Your task to perform on an android device: delete the emails in spam in the gmail app Image 0: 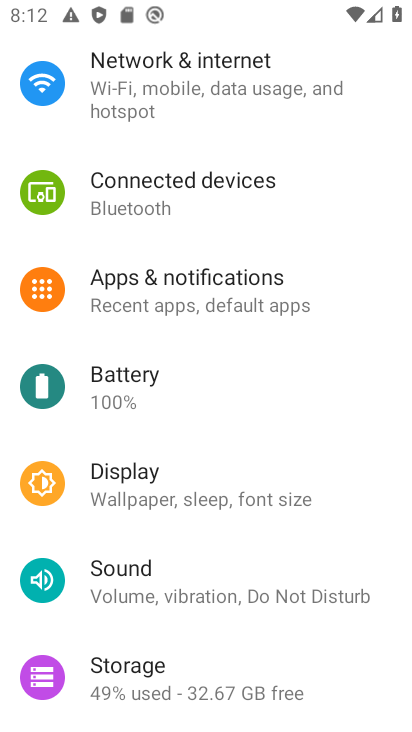
Step 0: press back button
Your task to perform on an android device: delete the emails in spam in the gmail app Image 1: 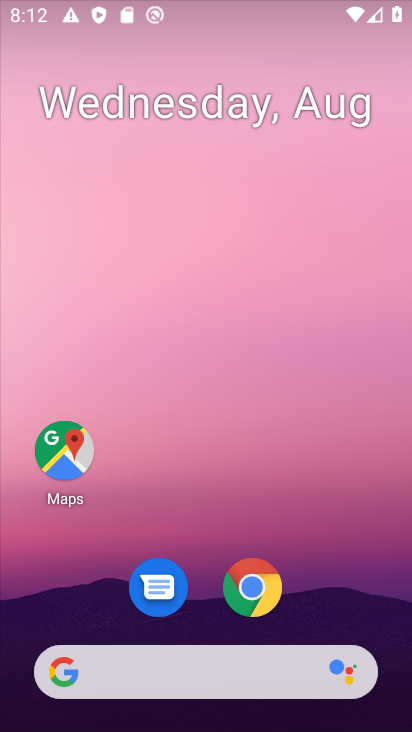
Step 1: drag from (152, 622) to (103, 284)
Your task to perform on an android device: delete the emails in spam in the gmail app Image 2: 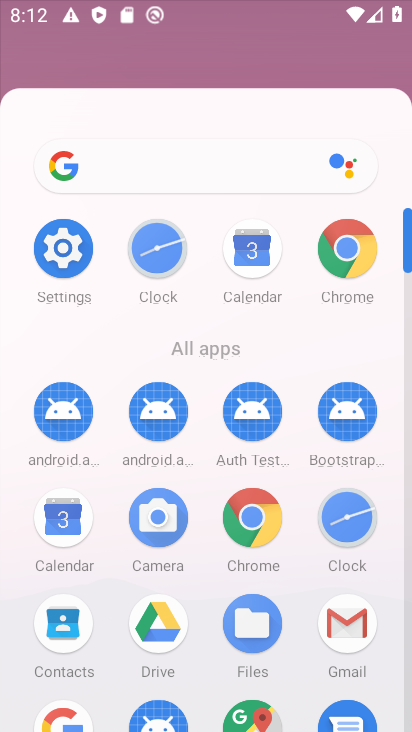
Step 2: drag from (150, 655) to (50, 300)
Your task to perform on an android device: delete the emails in spam in the gmail app Image 3: 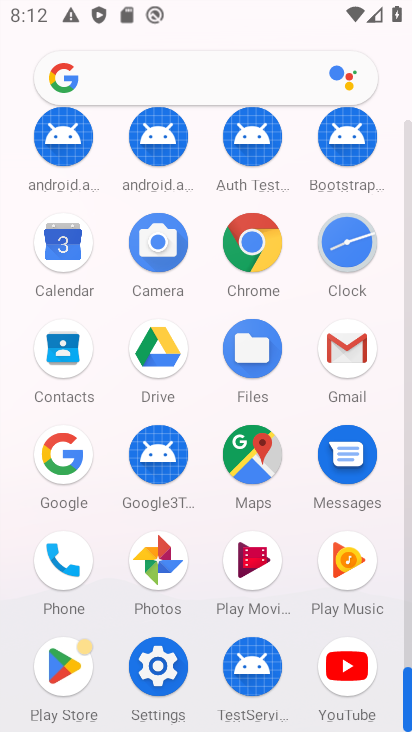
Step 3: click (345, 353)
Your task to perform on an android device: delete the emails in spam in the gmail app Image 4: 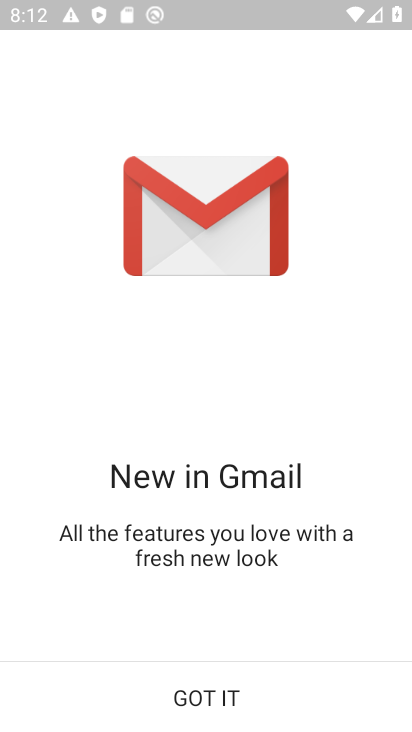
Step 4: press back button
Your task to perform on an android device: delete the emails in spam in the gmail app Image 5: 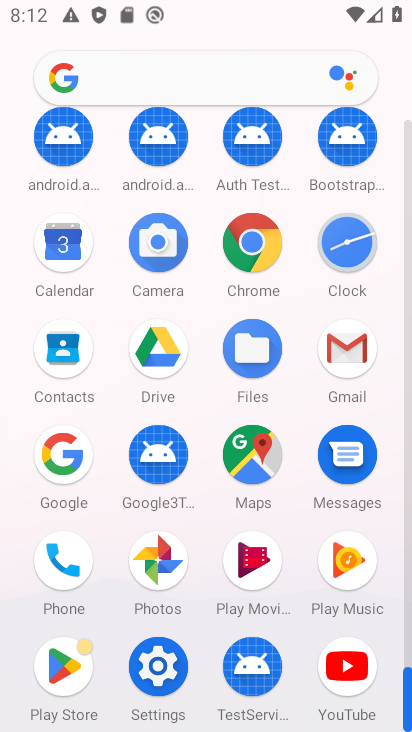
Step 5: click (342, 351)
Your task to perform on an android device: delete the emails in spam in the gmail app Image 6: 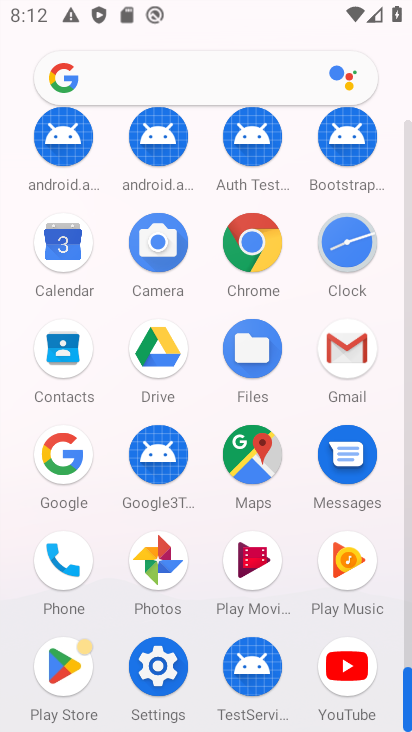
Step 6: click (342, 352)
Your task to perform on an android device: delete the emails in spam in the gmail app Image 7: 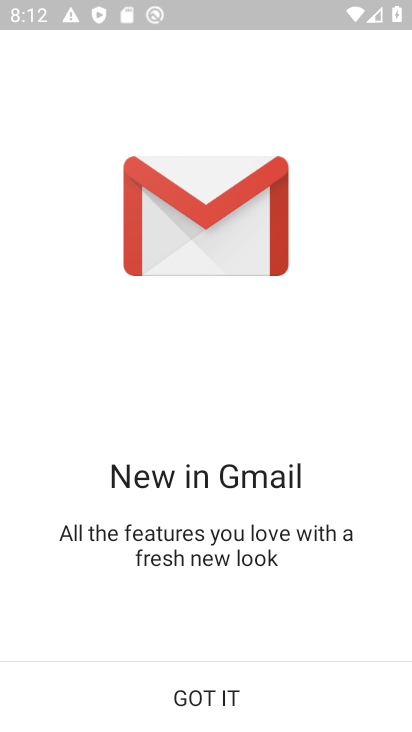
Step 7: click (211, 691)
Your task to perform on an android device: delete the emails in spam in the gmail app Image 8: 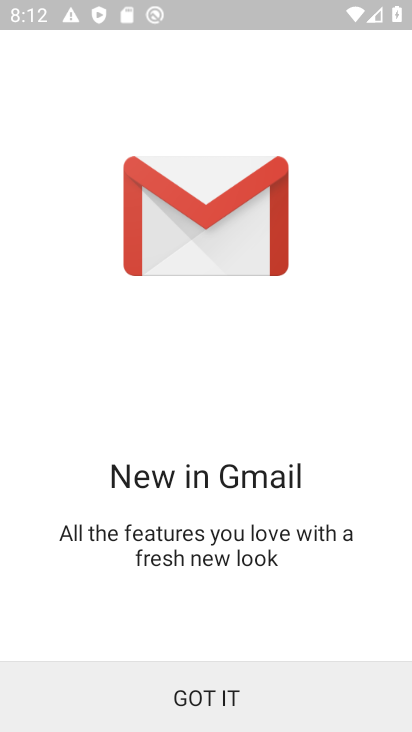
Step 8: click (215, 691)
Your task to perform on an android device: delete the emails in spam in the gmail app Image 9: 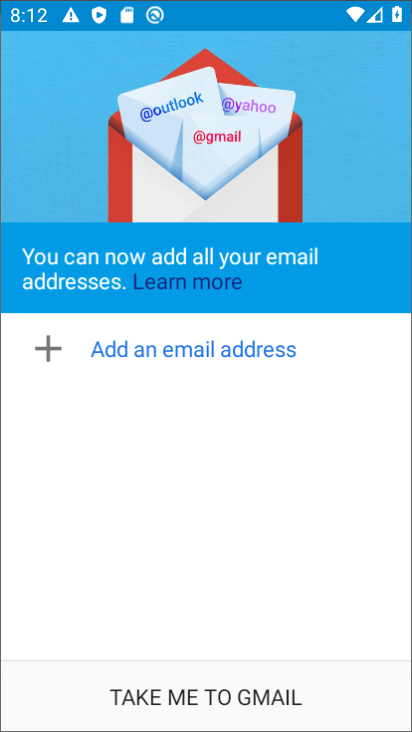
Step 9: click (216, 691)
Your task to perform on an android device: delete the emails in spam in the gmail app Image 10: 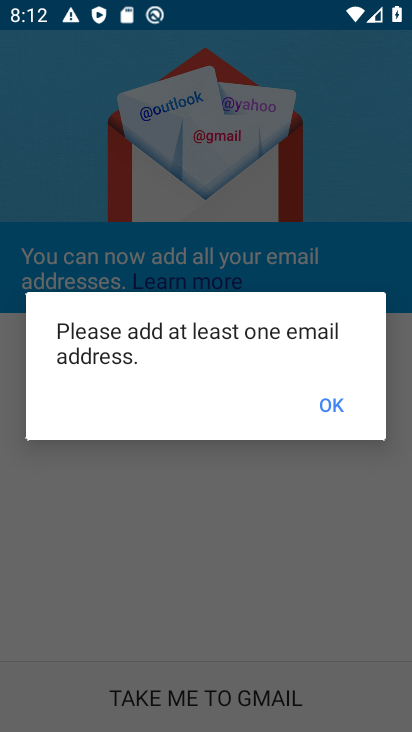
Step 10: click (329, 397)
Your task to perform on an android device: delete the emails in spam in the gmail app Image 11: 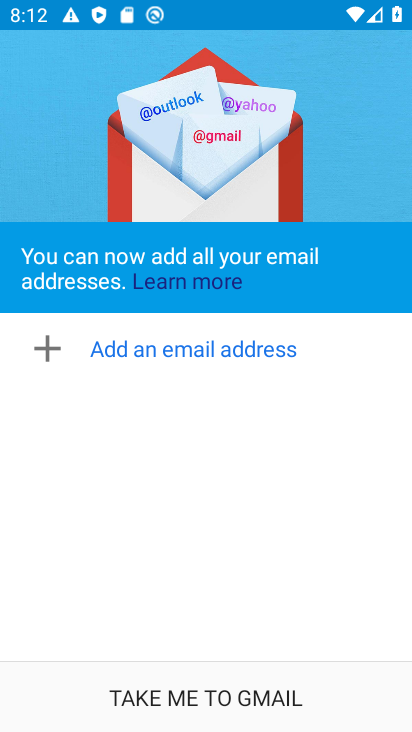
Step 11: click (211, 691)
Your task to perform on an android device: delete the emails in spam in the gmail app Image 12: 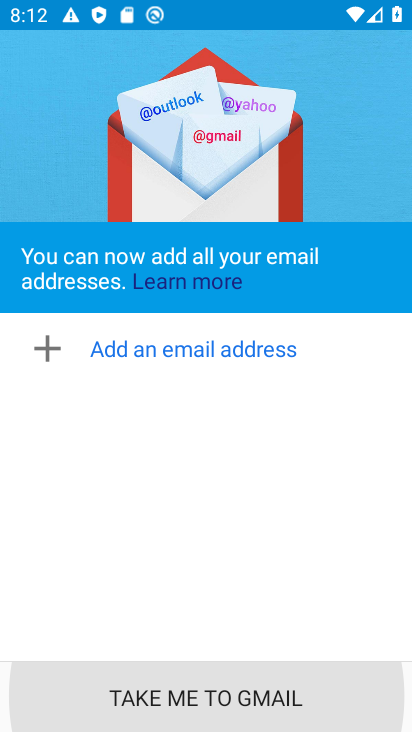
Step 12: click (211, 691)
Your task to perform on an android device: delete the emails in spam in the gmail app Image 13: 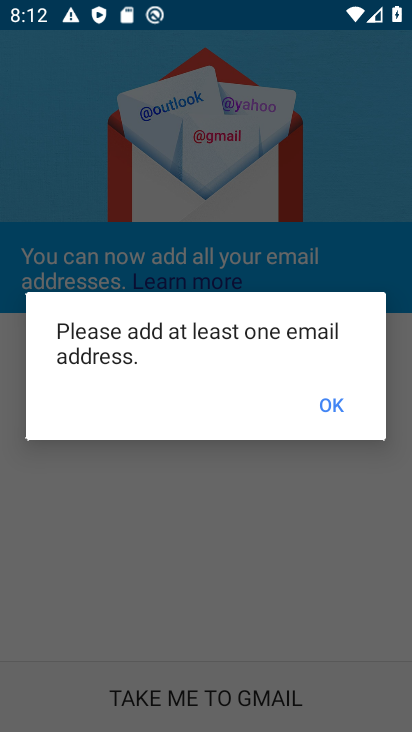
Step 13: click (326, 401)
Your task to perform on an android device: delete the emails in spam in the gmail app Image 14: 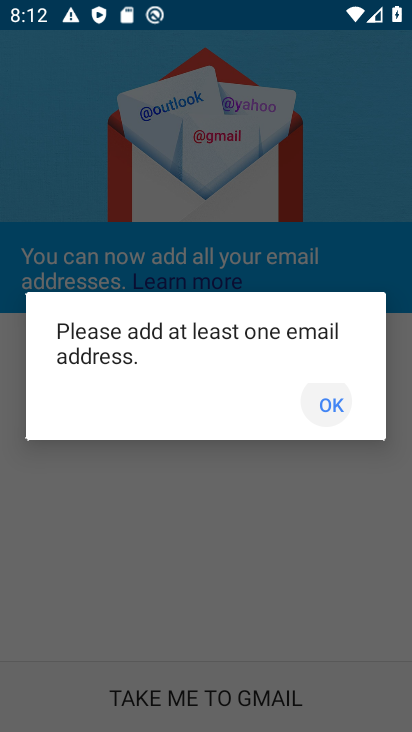
Step 14: click (325, 403)
Your task to perform on an android device: delete the emails in spam in the gmail app Image 15: 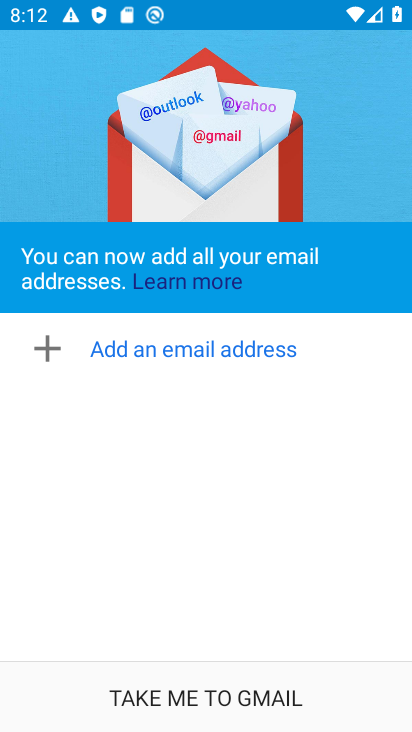
Step 15: click (324, 405)
Your task to perform on an android device: delete the emails in spam in the gmail app Image 16: 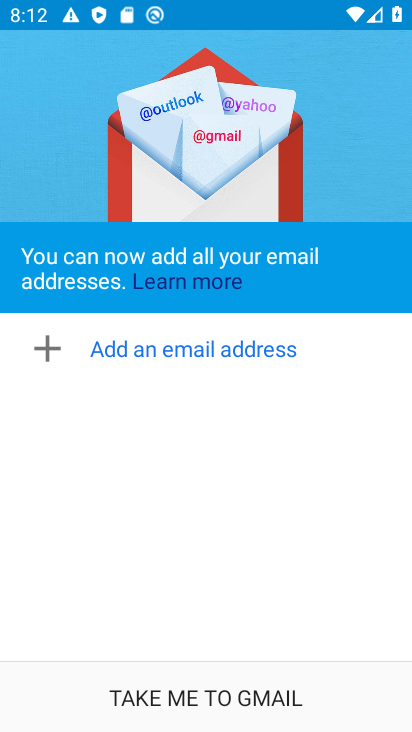
Step 16: click (212, 698)
Your task to perform on an android device: delete the emails in spam in the gmail app Image 17: 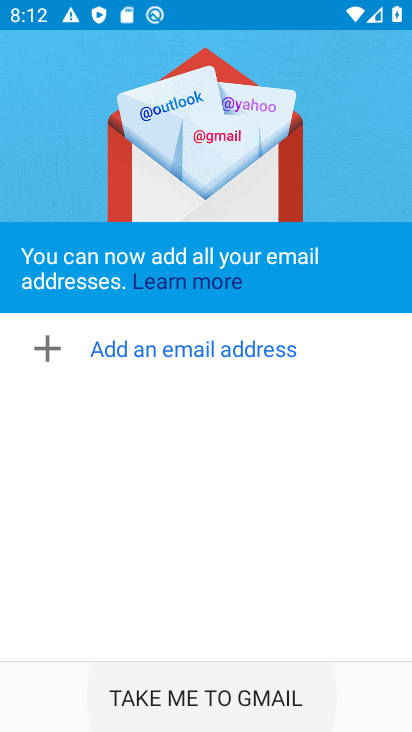
Step 17: click (221, 693)
Your task to perform on an android device: delete the emails in spam in the gmail app Image 18: 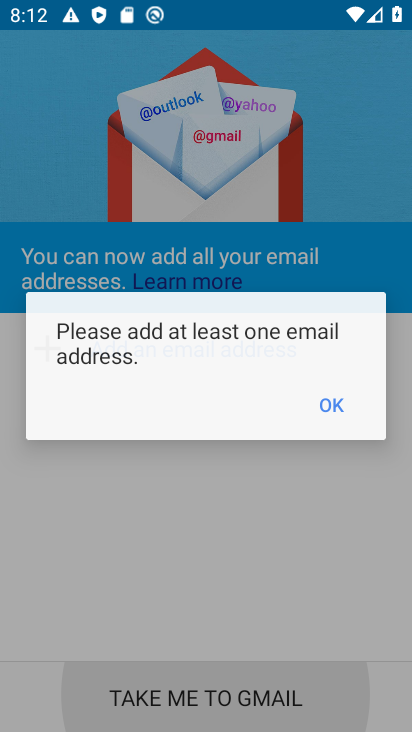
Step 18: click (222, 693)
Your task to perform on an android device: delete the emails in spam in the gmail app Image 19: 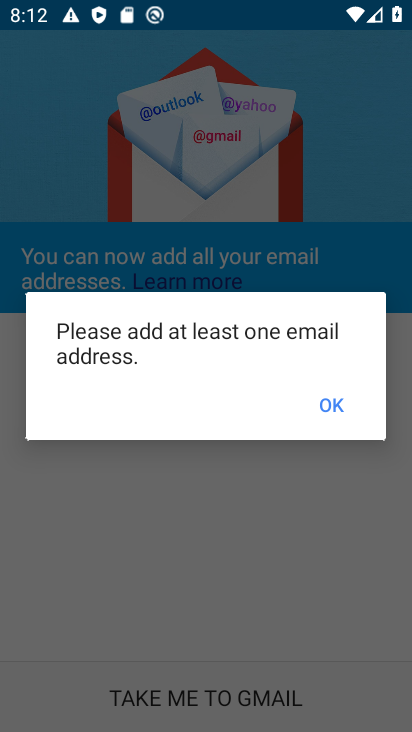
Step 19: click (327, 402)
Your task to perform on an android device: delete the emails in spam in the gmail app Image 20: 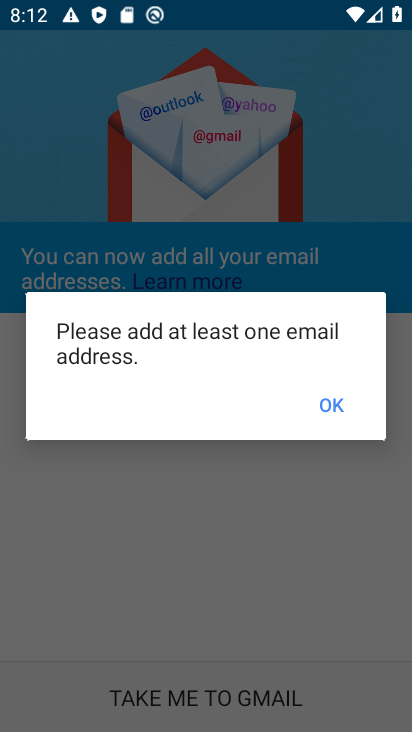
Step 20: click (288, 369)
Your task to perform on an android device: delete the emails in spam in the gmail app Image 21: 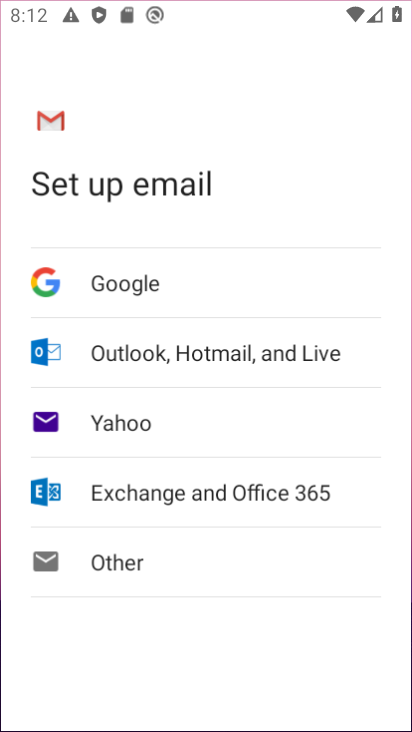
Step 21: click (151, 697)
Your task to perform on an android device: delete the emails in spam in the gmail app Image 22: 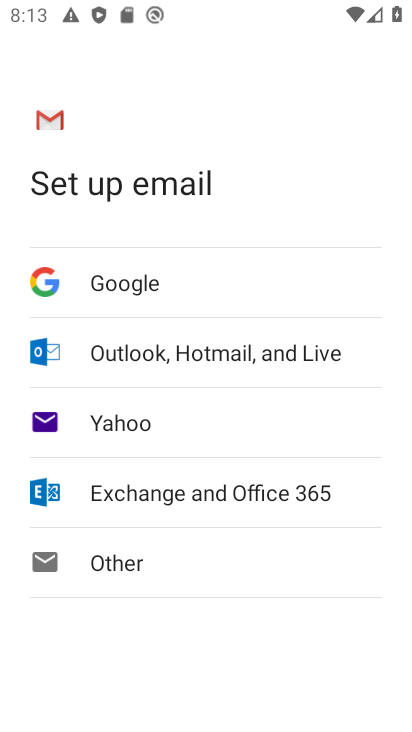
Step 22: click (150, 696)
Your task to perform on an android device: delete the emails in spam in the gmail app Image 23: 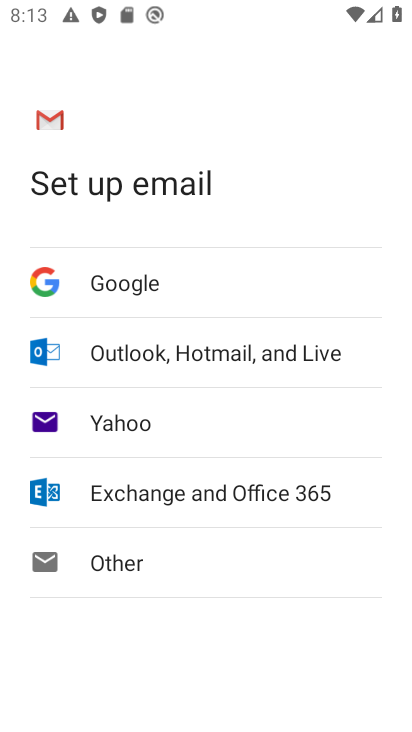
Step 23: press back button
Your task to perform on an android device: delete the emails in spam in the gmail app Image 24: 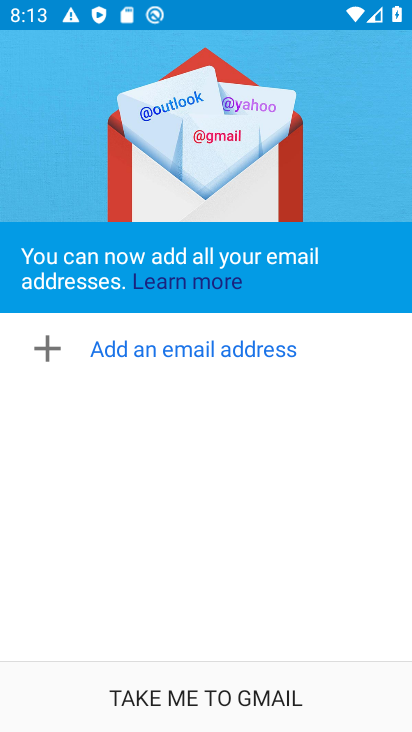
Step 24: click (263, 703)
Your task to perform on an android device: delete the emails in spam in the gmail app Image 25: 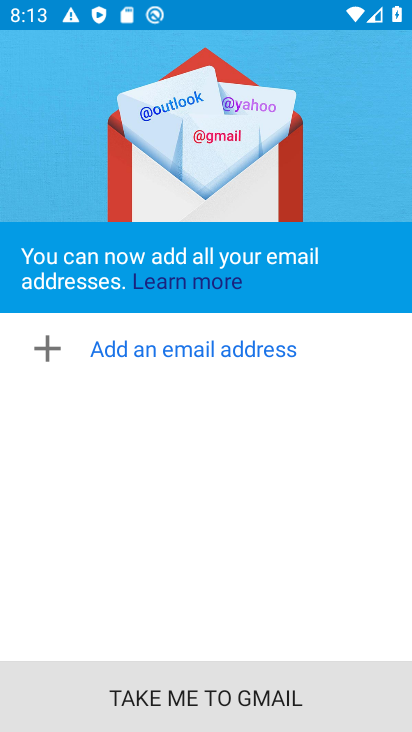
Step 25: click (263, 703)
Your task to perform on an android device: delete the emails in spam in the gmail app Image 26: 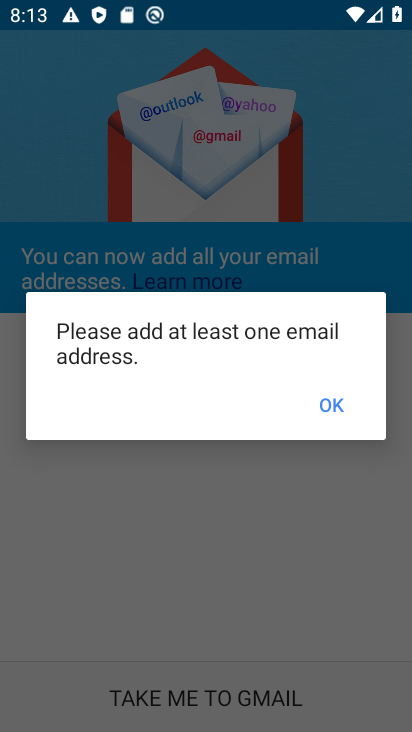
Step 26: click (263, 703)
Your task to perform on an android device: delete the emails in spam in the gmail app Image 27: 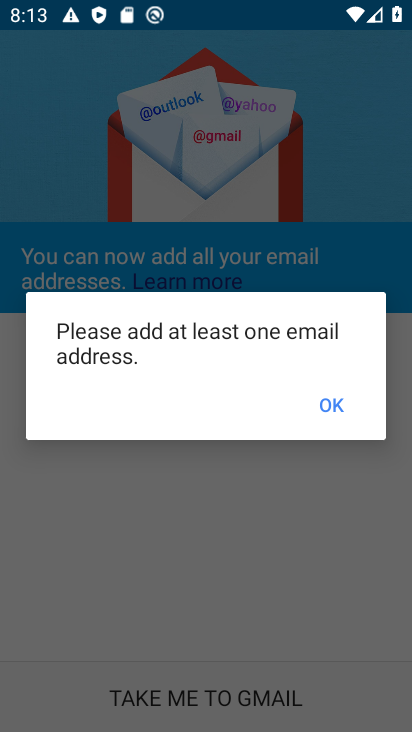
Step 27: click (321, 397)
Your task to perform on an android device: delete the emails in spam in the gmail app Image 28: 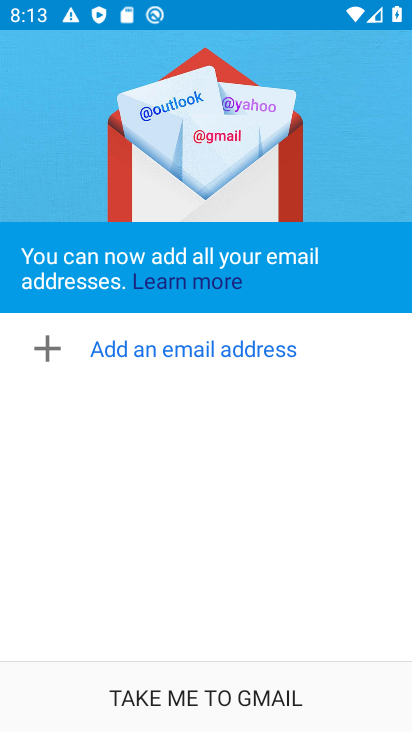
Step 28: task complete